Your task to perform on an android device: Open Yahoo.com Image 0: 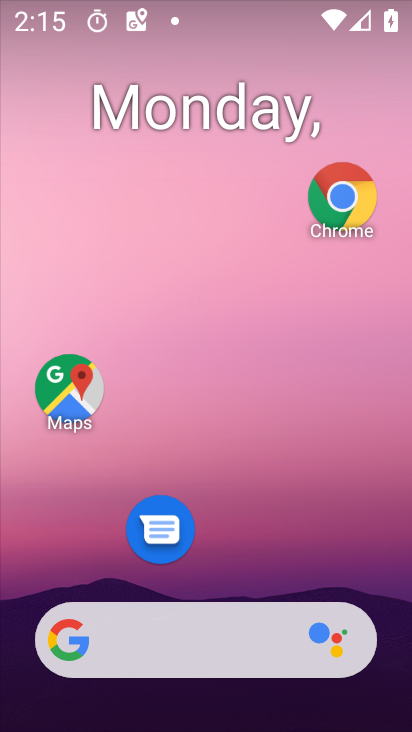
Step 0: drag from (255, 593) to (216, 11)
Your task to perform on an android device: Open Yahoo.com Image 1: 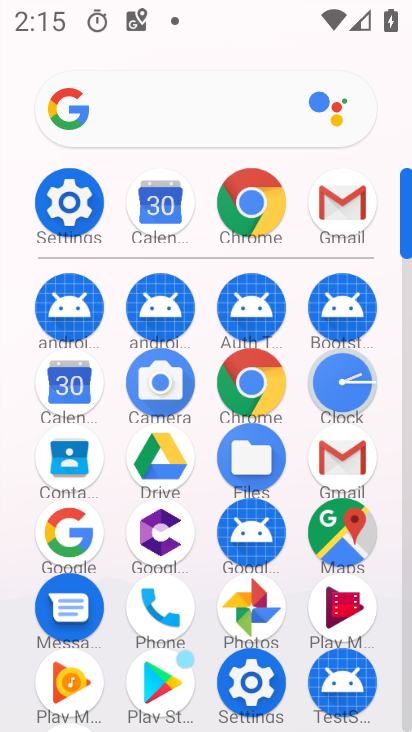
Step 1: click (245, 201)
Your task to perform on an android device: Open Yahoo.com Image 2: 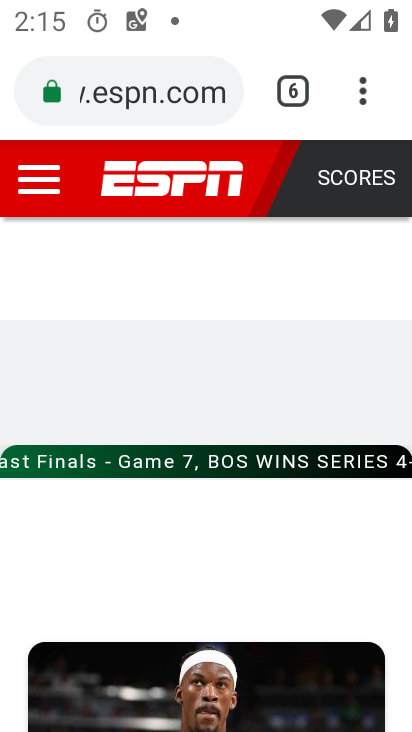
Step 2: click (308, 84)
Your task to perform on an android device: Open Yahoo.com Image 3: 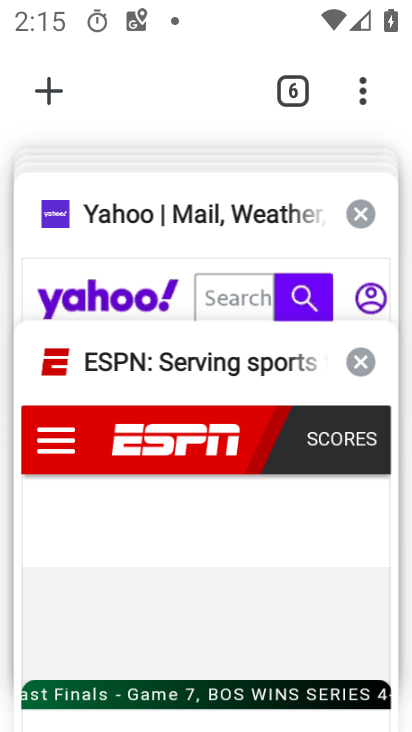
Step 3: click (227, 292)
Your task to perform on an android device: Open Yahoo.com Image 4: 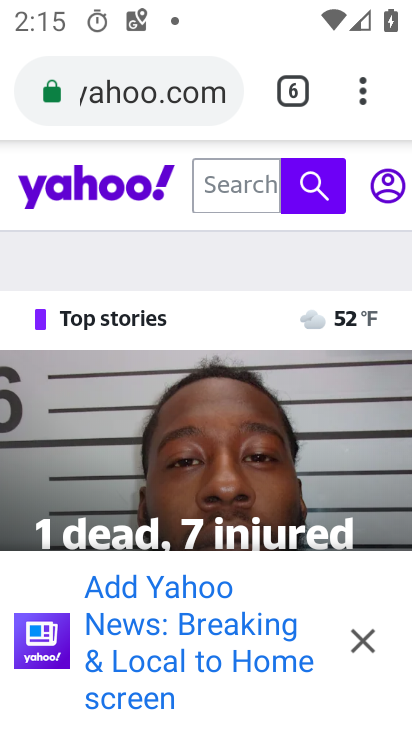
Step 4: task complete